Your task to perform on an android device: turn off location Image 0: 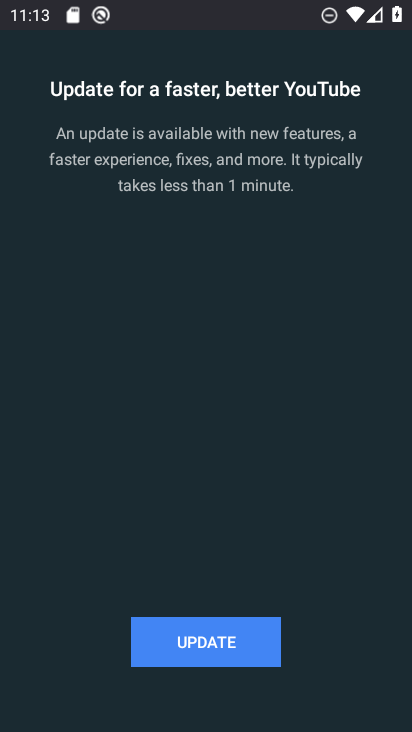
Step 0: press home button
Your task to perform on an android device: turn off location Image 1: 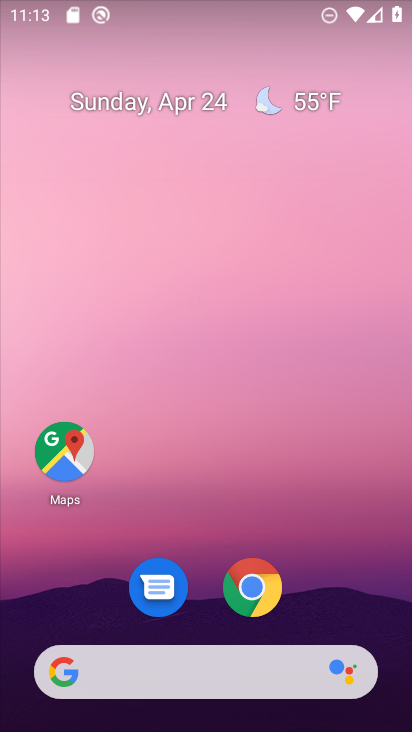
Step 1: drag from (356, 487) to (345, 143)
Your task to perform on an android device: turn off location Image 2: 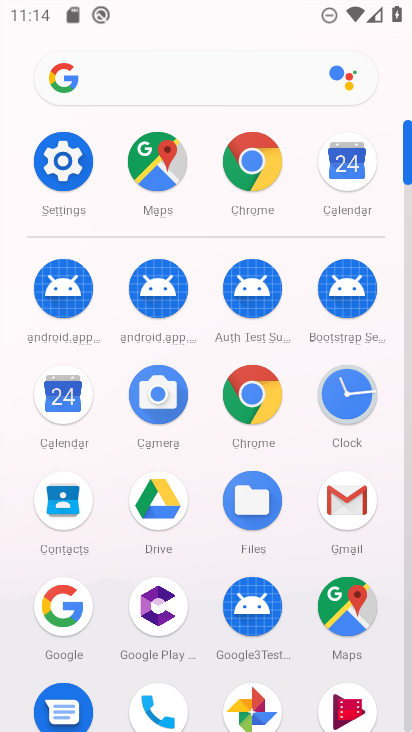
Step 2: click (78, 160)
Your task to perform on an android device: turn off location Image 3: 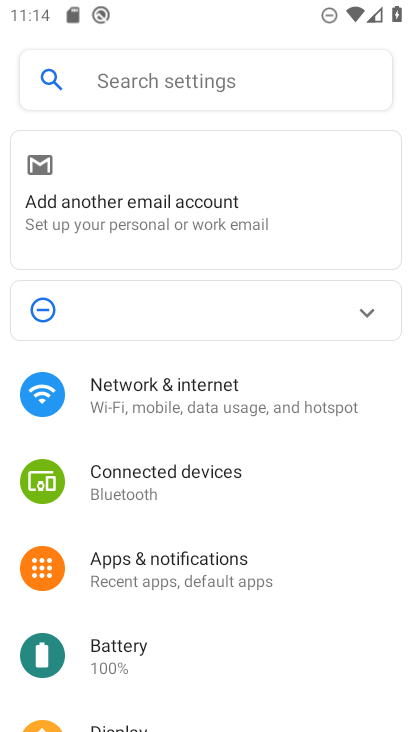
Step 3: drag from (307, 602) to (215, 148)
Your task to perform on an android device: turn off location Image 4: 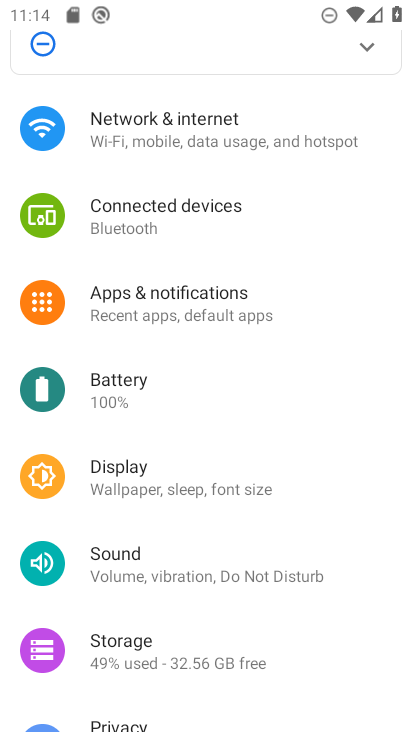
Step 4: drag from (171, 575) to (154, 245)
Your task to perform on an android device: turn off location Image 5: 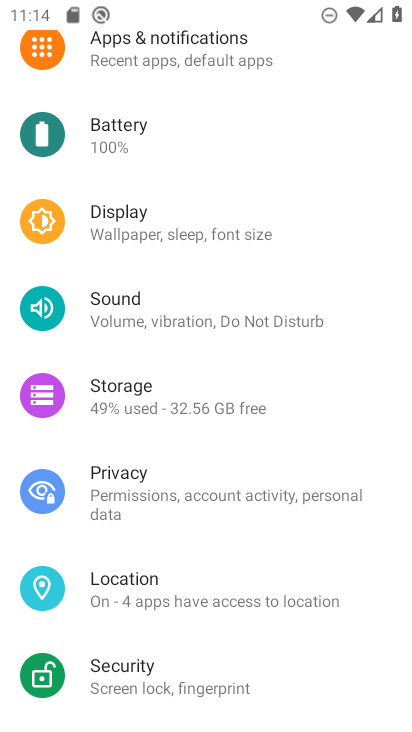
Step 5: click (124, 582)
Your task to perform on an android device: turn off location Image 6: 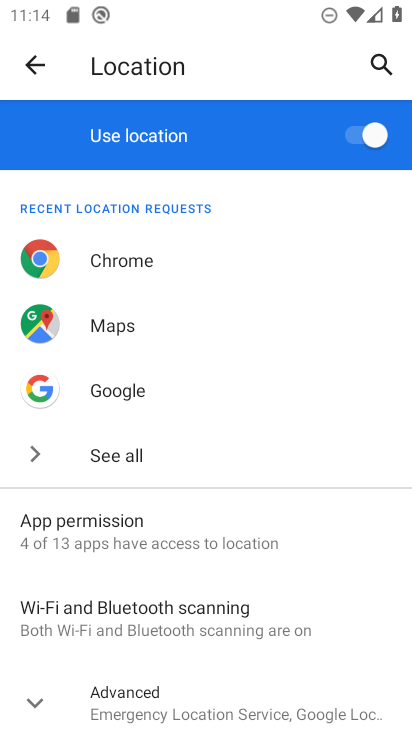
Step 6: click (141, 691)
Your task to perform on an android device: turn off location Image 7: 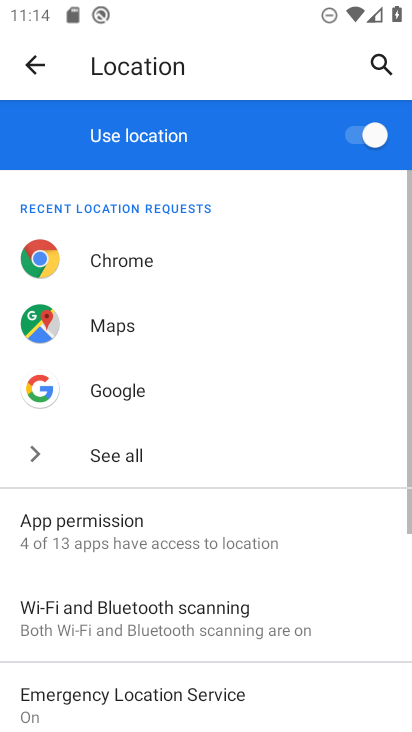
Step 7: drag from (326, 668) to (313, 226)
Your task to perform on an android device: turn off location Image 8: 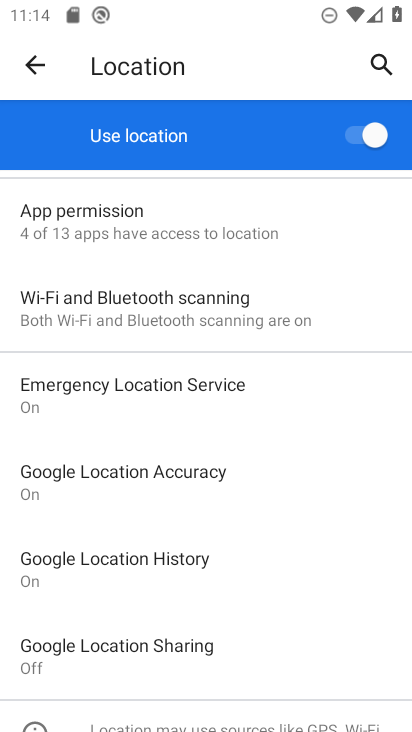
Step 8: click (147, 562)
Your task to perform on an android device: turn off location Image 9: 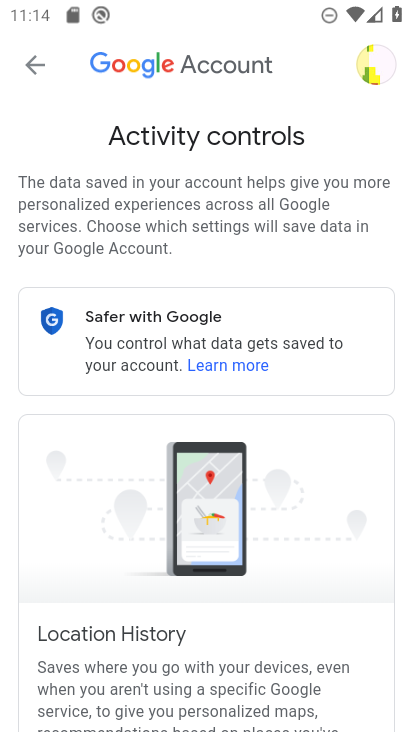
Step 9: drag from (260, 655) to (329, 230)
Your task to perform on an android device: turn off location Image 10: 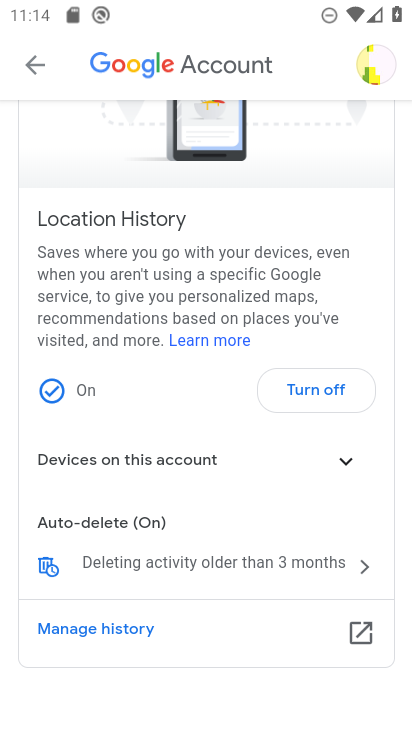
Step 10: click (303, 389)
Your task to perform on an android device: turn off location Image 11: 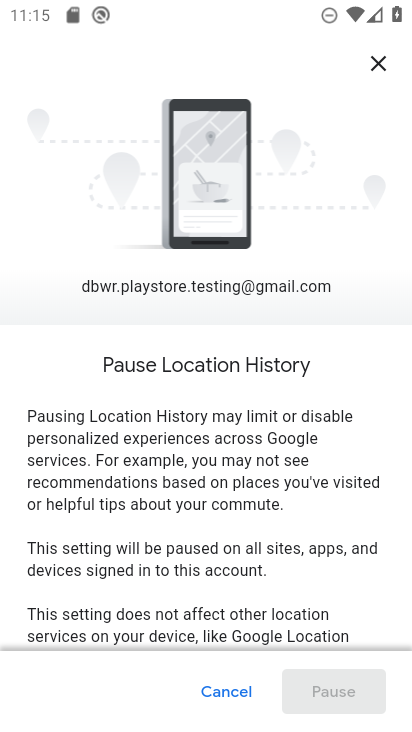
Step 11: drag from (303, 485) to (241, 69)
Your task to perform on an android device: turn off location Image 12: 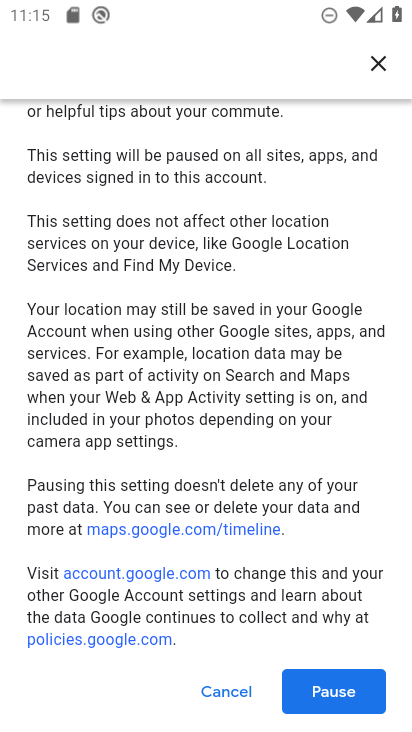
Step 12: click (363, 689)
Your task to perform on an android device: turn off location Image 13: 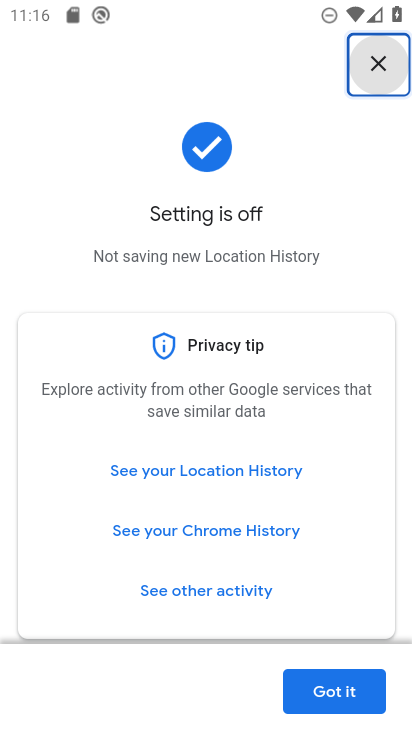
Step 13: task complete